Your task to perform on an android device: toggle wifi Image 0: 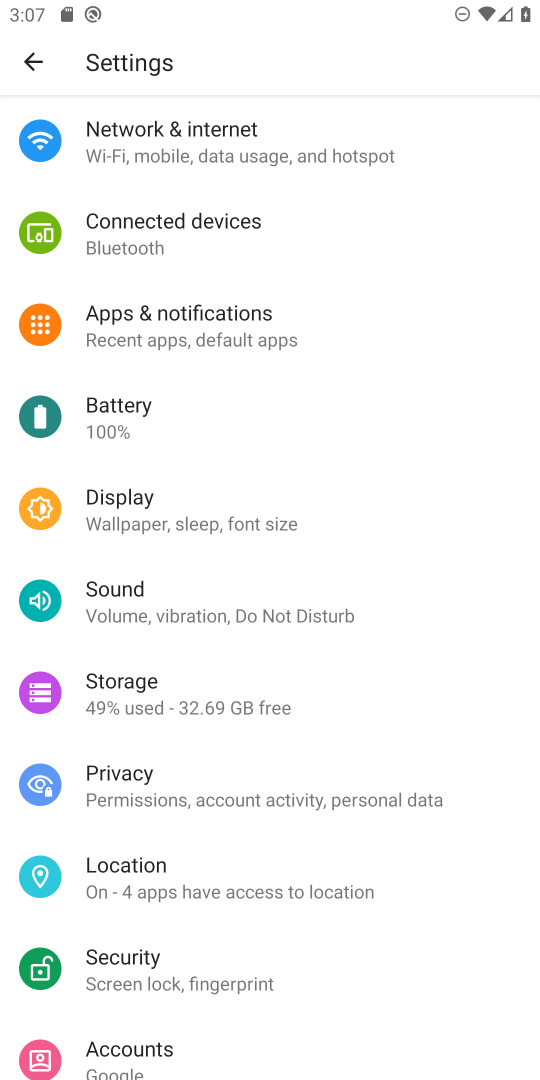
Step 0: drag from (241, 5) to (280, 405)
Your task to perform on an android device: toggle wifi Image 1: 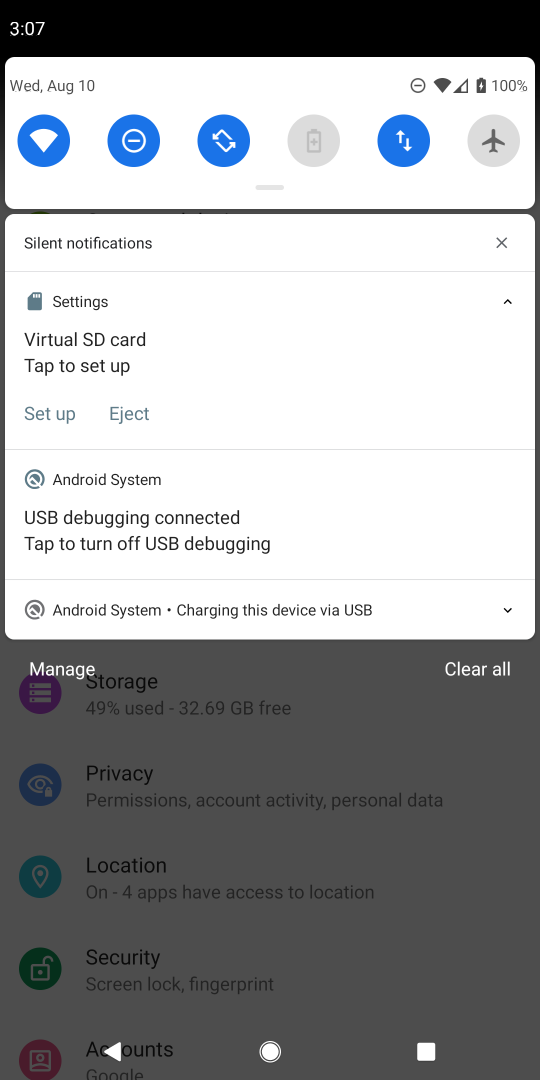
Step 1: click (39, 156)
Your task to perform on an android device: toggle wifi Image 2: 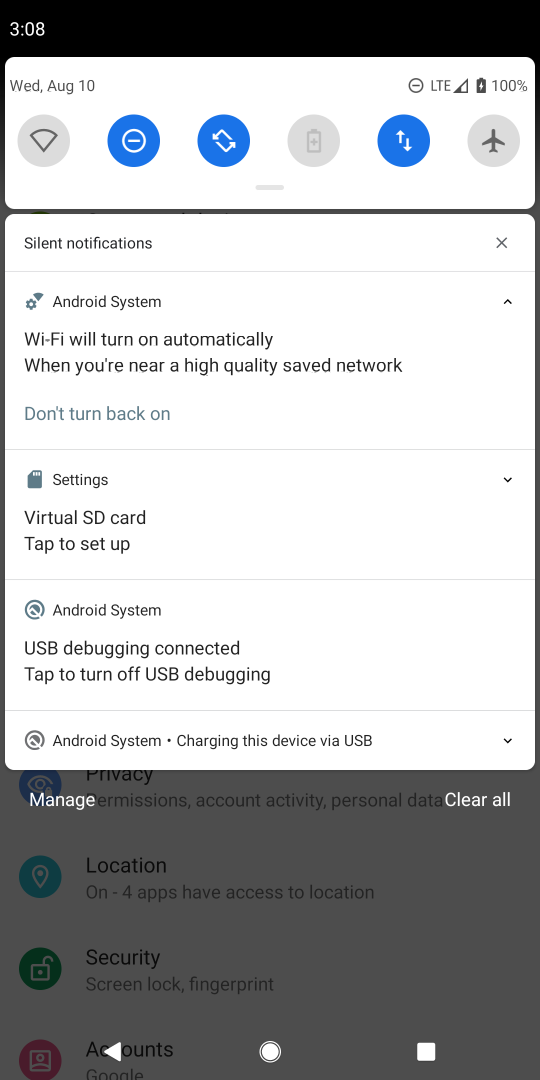
Step 2: task complete